Your task to perform on an android device: Open the stopwatch Image 0: 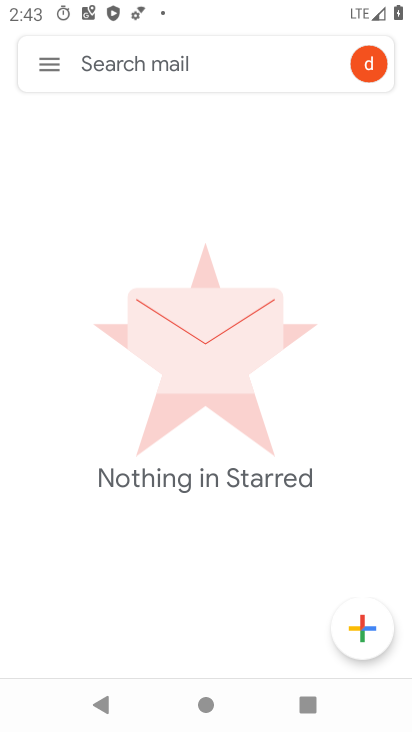
Step 0: click (57, 63)
Your task to perform on an android device: Open the stopwatch Image 1: 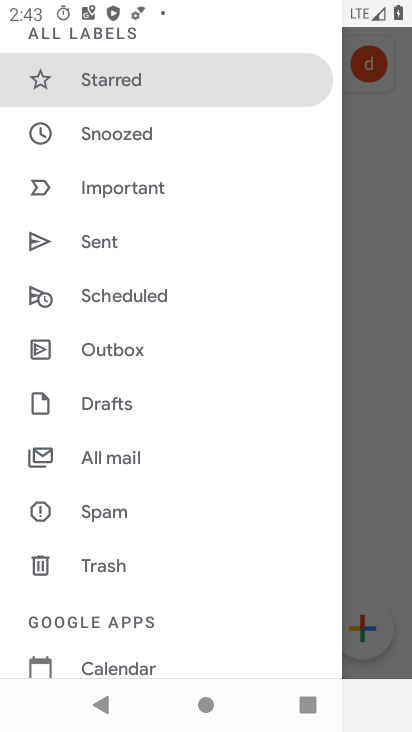
Step 1: press home button
Your task to perform on an android device: Open the stopwatch Image 2: 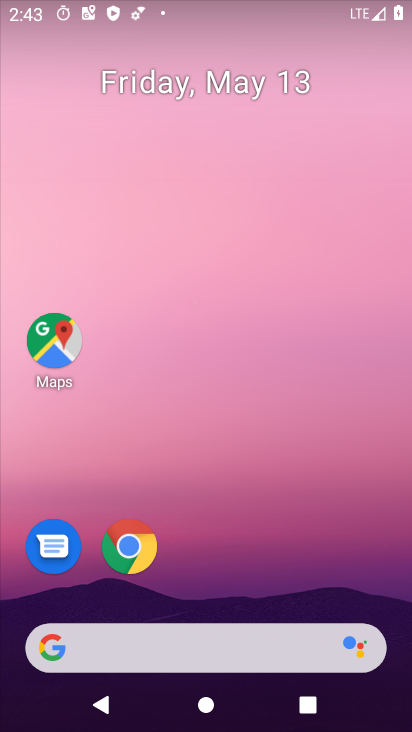
Step 2: drag from (271, 470) to (324, 180)
Your task to perform on an android device: Open the stopwatch Image 3: 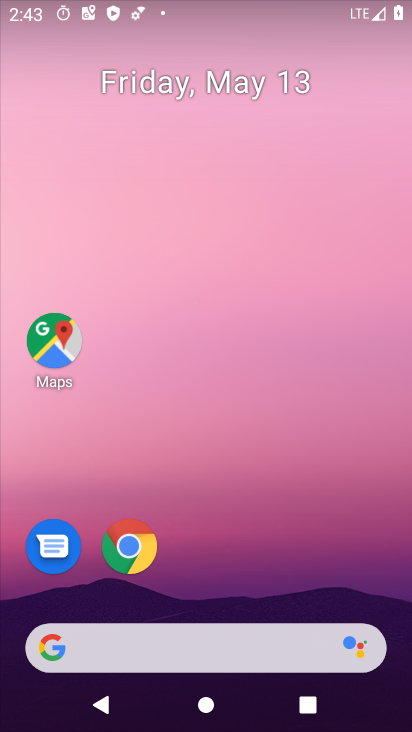
Step 3: drag from (241, 549) to (310, 20)
Your task to perform on an android device: Open the stopwatch Image 4: 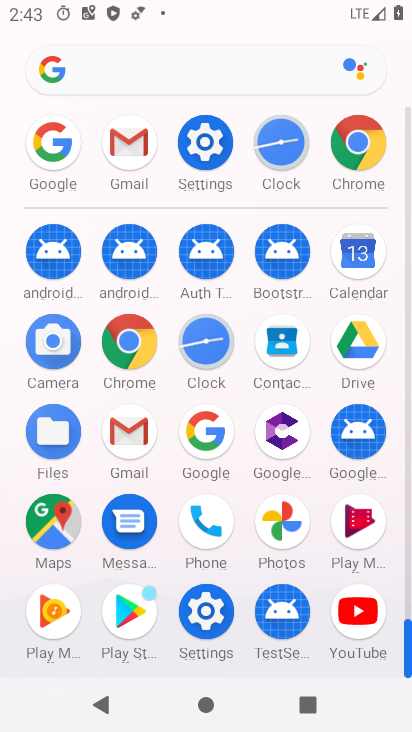
Step 4: click (224, 353)
Your task to perform on an android device: Open the stopwatch Image 5: 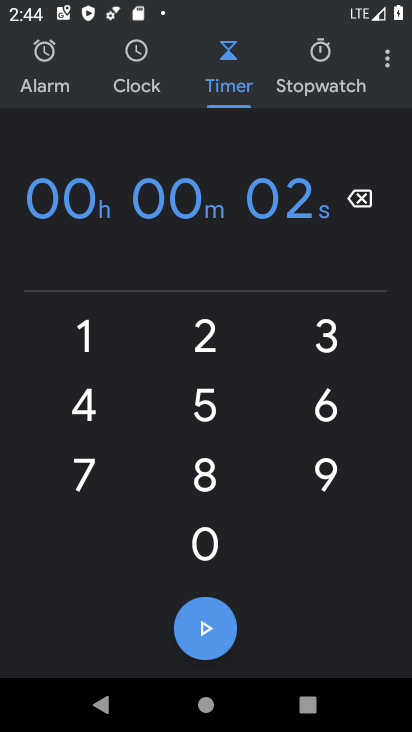
Step 5: click (325, 98)
Your task to perform on an android device: Open the stopwatch Image 6: 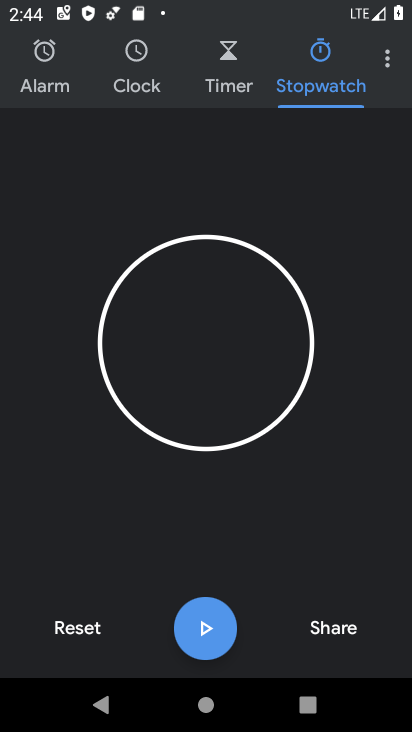
Step 6: task complete